Your task to perform on an android device: Open privacy settings Image 0: 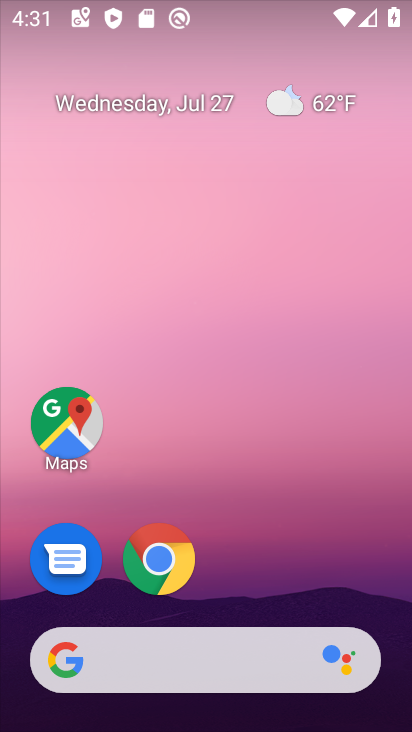
Step 0: drag from (266, 540) to (273, 15)
Your task to perform on an android device: Open privacy settings Image 1: 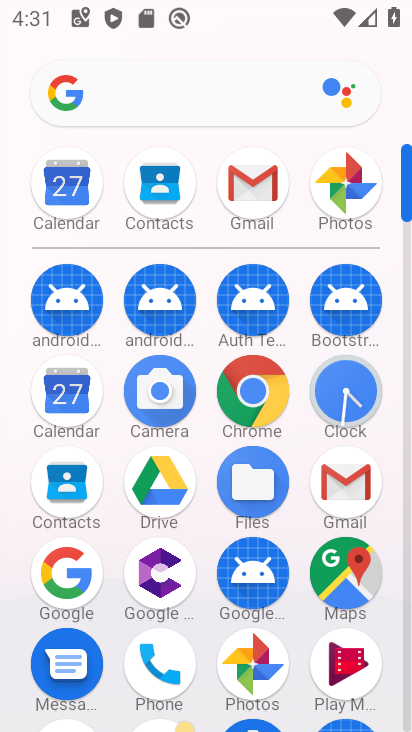
Step 1: drag from (175, 610) to (204, 161)
Your task to perform on an android device: Open privacy settings Image 2: 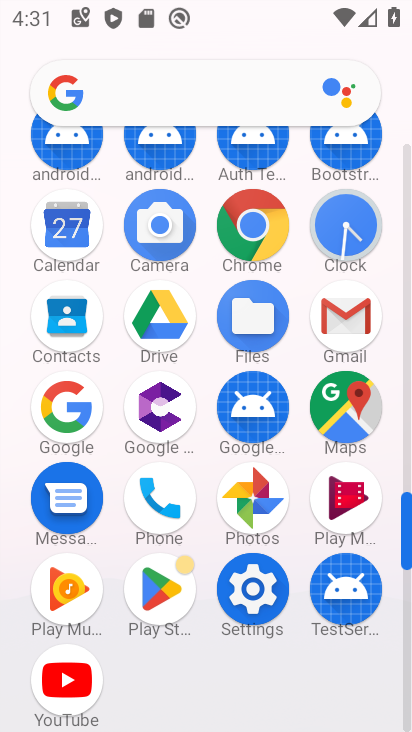
Step 2: click (256, 595)
Your task to perform on an android device: Open privacy settings Image 3: 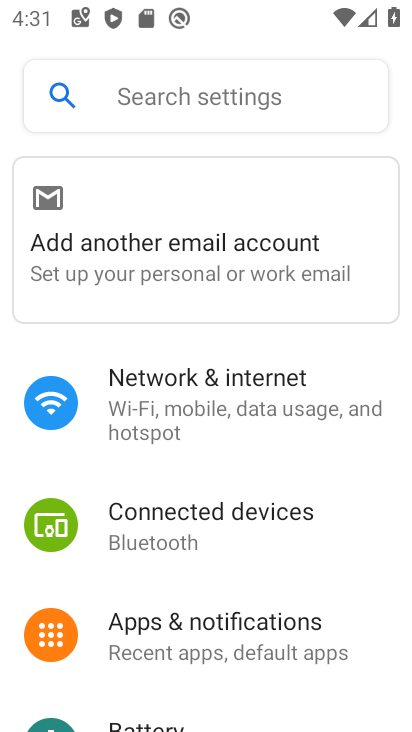
Step 3: drag from (190, 607) to (282, 183)
Your task to perform on an android device: Open privacy settings Image 4: 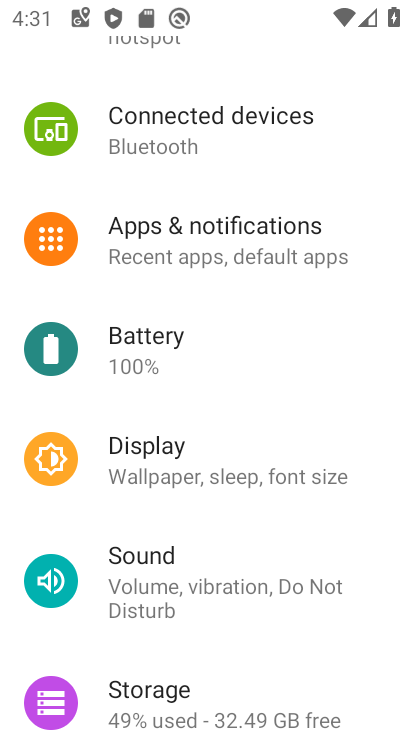
Step 4: drag from (189, 652) to (220, 205)
Your task to perform on an android device: Open privacy settings Image 5: 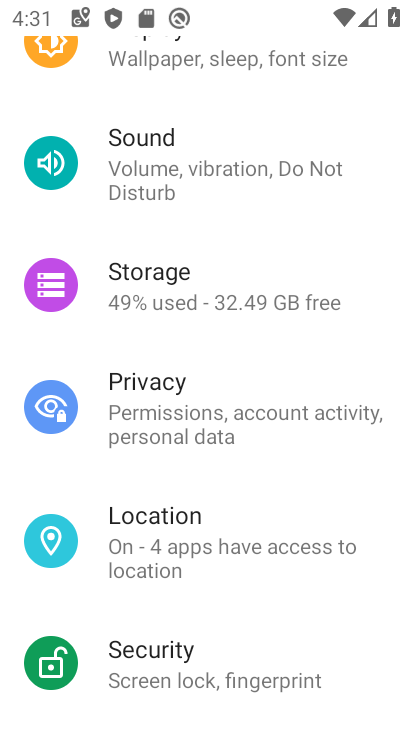
Step 5: click (160, 405)
Your task to perform on an android device: Open privacy settings Image 6: 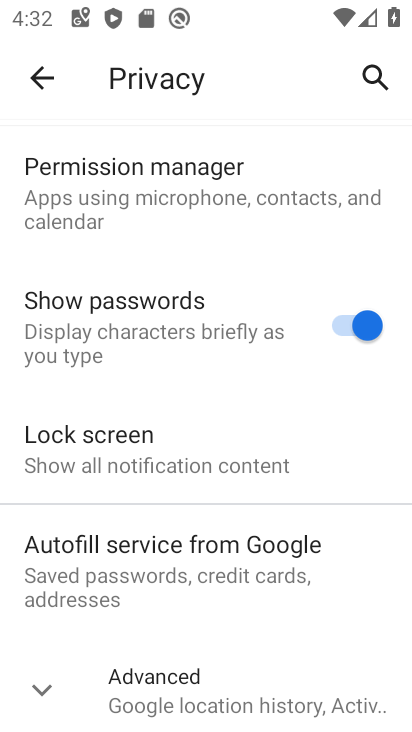
Step 6: task complete